Your task to perform on an android device: Turn off the flashlight Image 0: 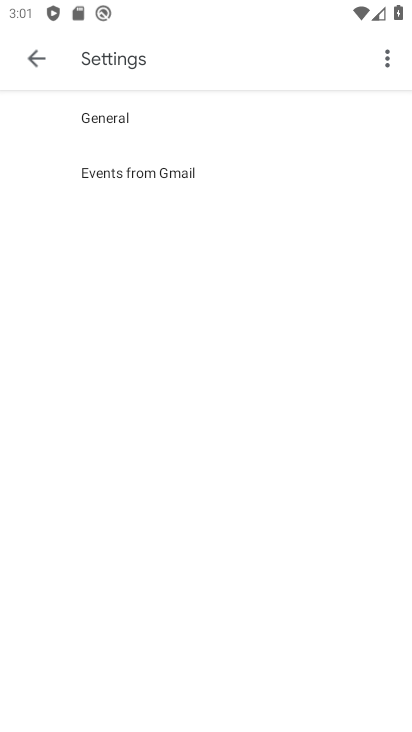
Step 0: press back button
Your task to perform on an android device: Turn off the flashlight Image 1: 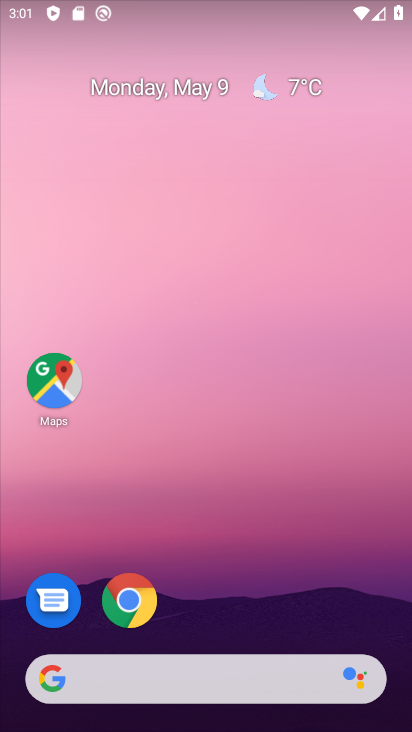
Step 1: drag from (268, 510) to (272, 22)
Your task to perform on an android device: Turn off the flashlight Image 2: 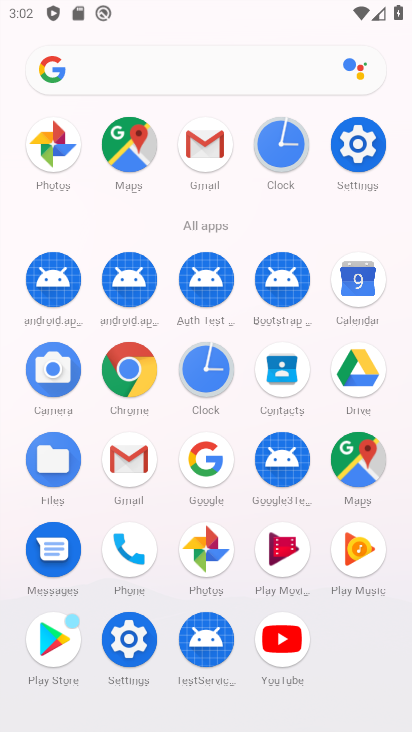
Step 2: click (361, 141)
Your task to perform on an android device: Turn off the flashlight Image 3: 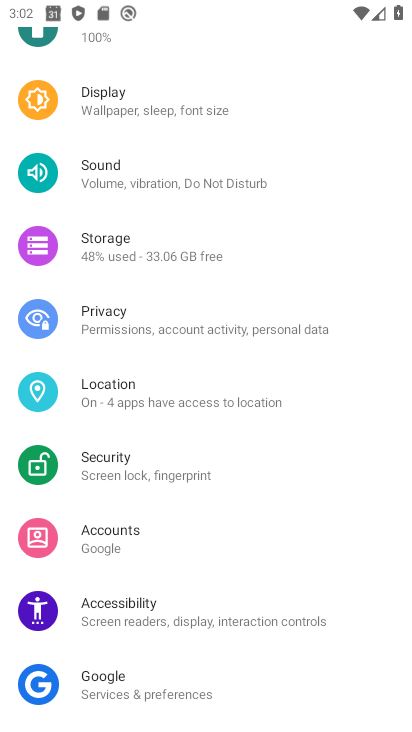
Step 3: drag from (262, 545) to (273, 151)
Your task to perform on an android device: Turn off the flashlight Image 4: 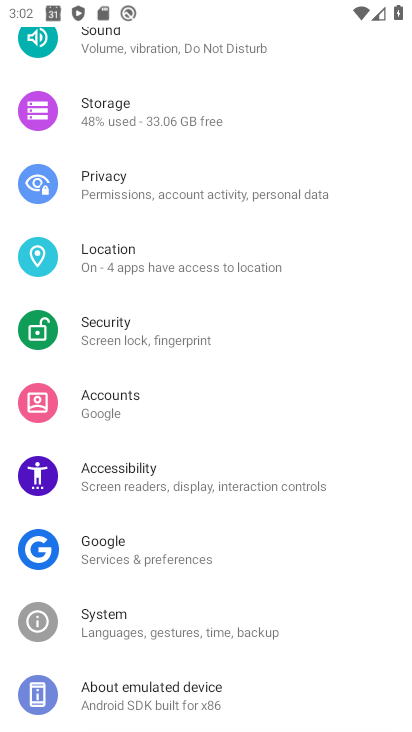
Step 4: drag from (268, 146) to (189, 579)
Your task to perform on an android device: Turn off the flashlight Image 5: 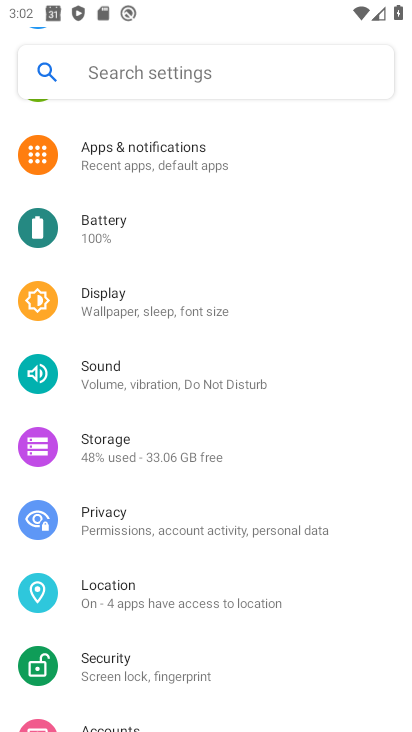
Step 5: drag from (266, 221) to (240, 531)
Your task to perform on an android device: Turn off the flashlight Image 6: 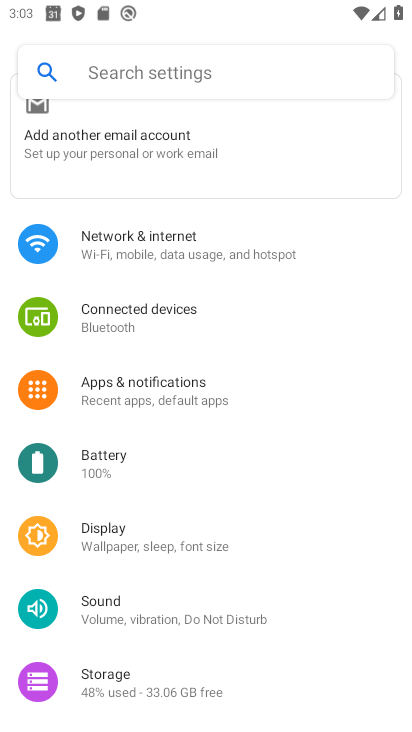
Step 6: click (209, 246)
Your task to perform on an android device: Turn off the flashlight Image 7: 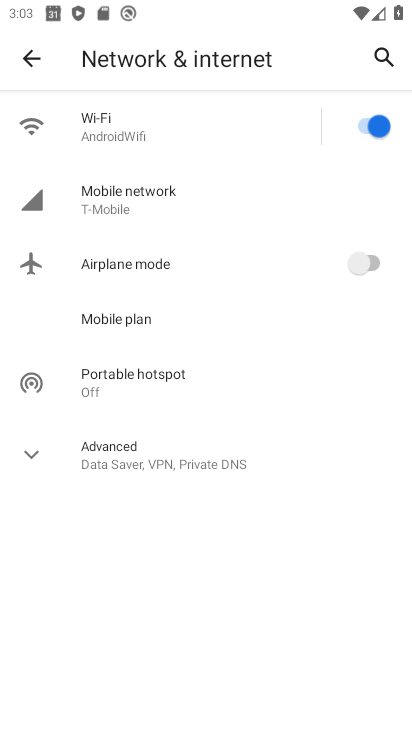
Step 7: click (32, 447)
Your task to perform on an android device: Turn off the flashlight Image 8: 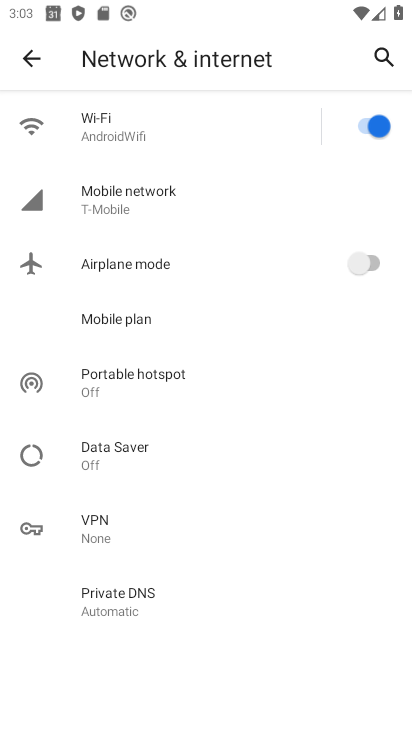
Step 8: task complete